Your task to perform on an android device: Show me productivity apps on the Play Store Image 0: 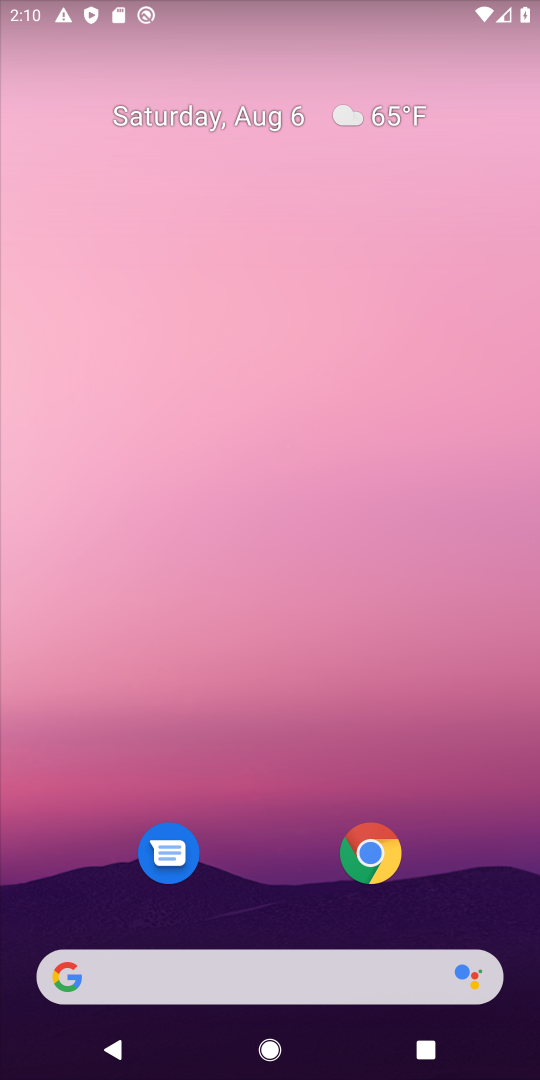
Step 0: press back button
Your task to perform on an android device: Show me productivity apps on the Play Store Image 1: 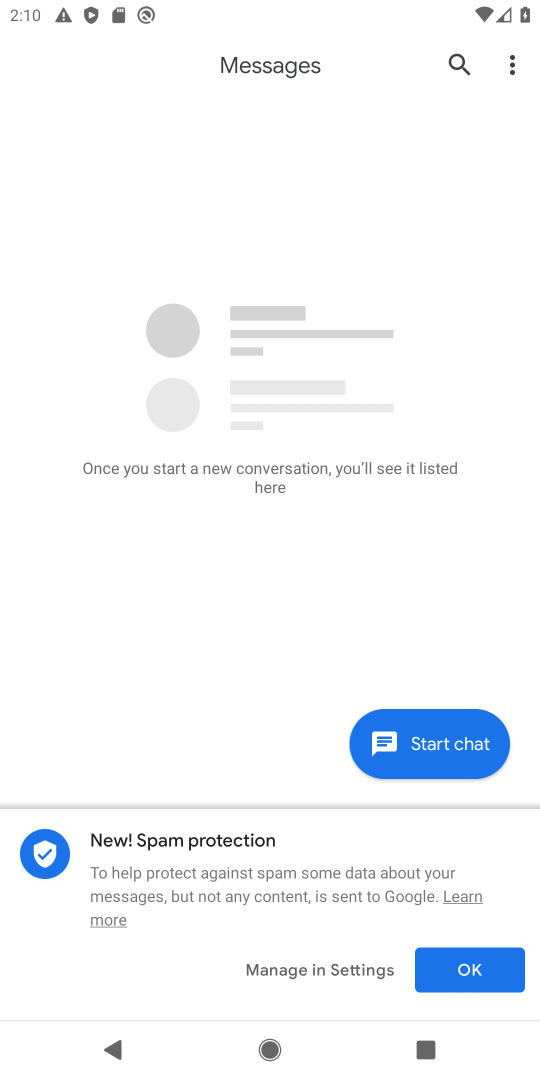
Step 1: click (323, 20)
Your task to perform on an android device: Show me productivity apps on the Play Store Image 2: 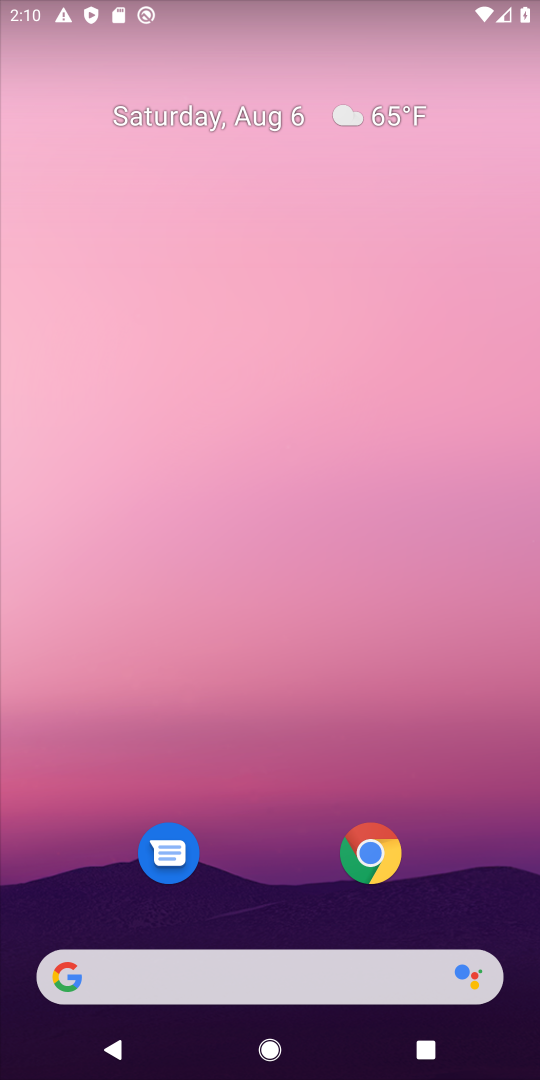
Step 2: drag from (266, 785) to (357, 80)
Your task to perform on an android device: Show me productivity apps on the Play Store Image 3: 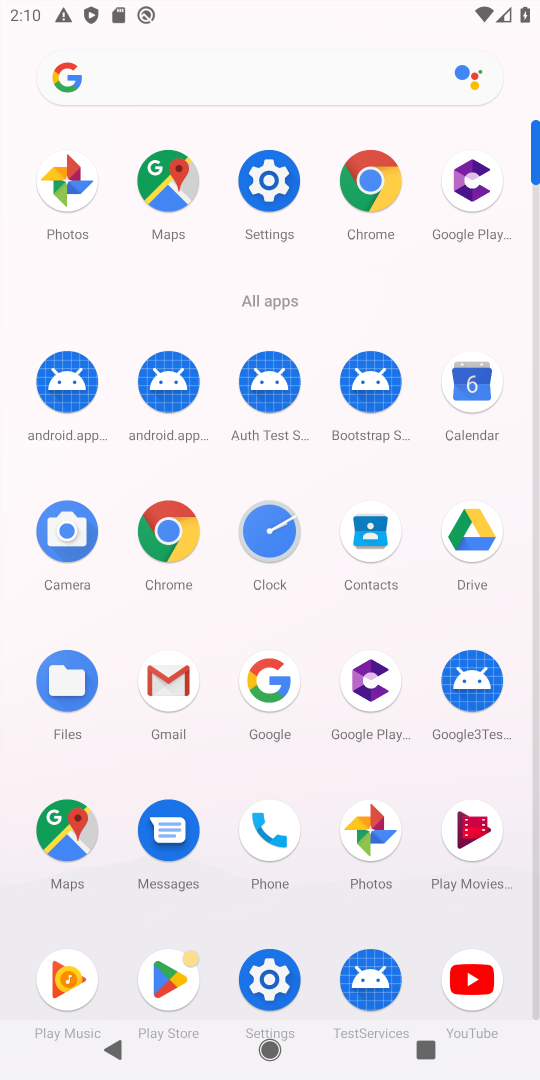
Step 3: drag from (257, 933) to (355, 228)
Your task to perform on an android device: Show me productivity apps on the Play Store Image 4: 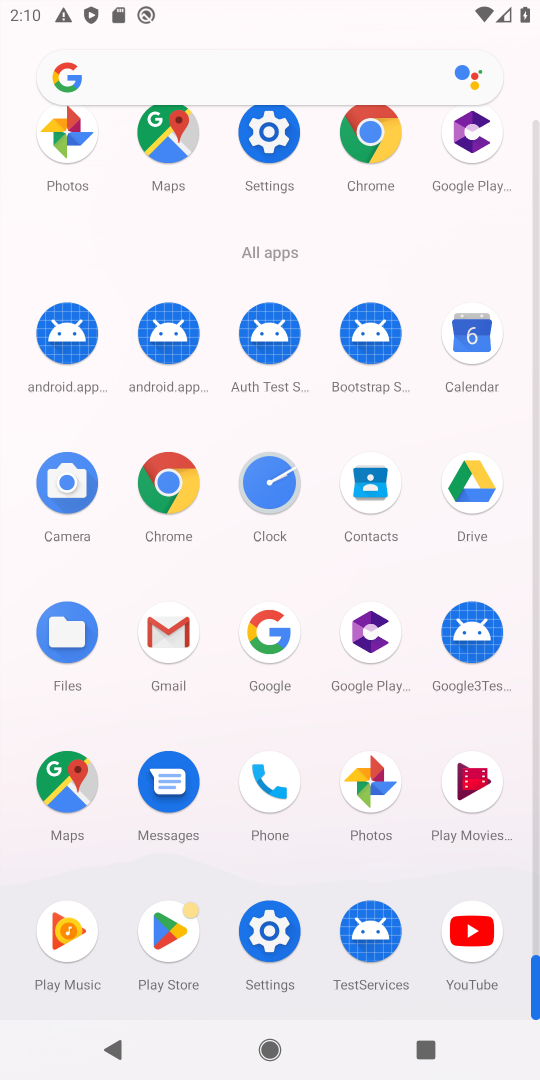
Step 4: click (176, 935)
Your task to perform on an android device: Show me productivity apps on the Play Store Image 5: 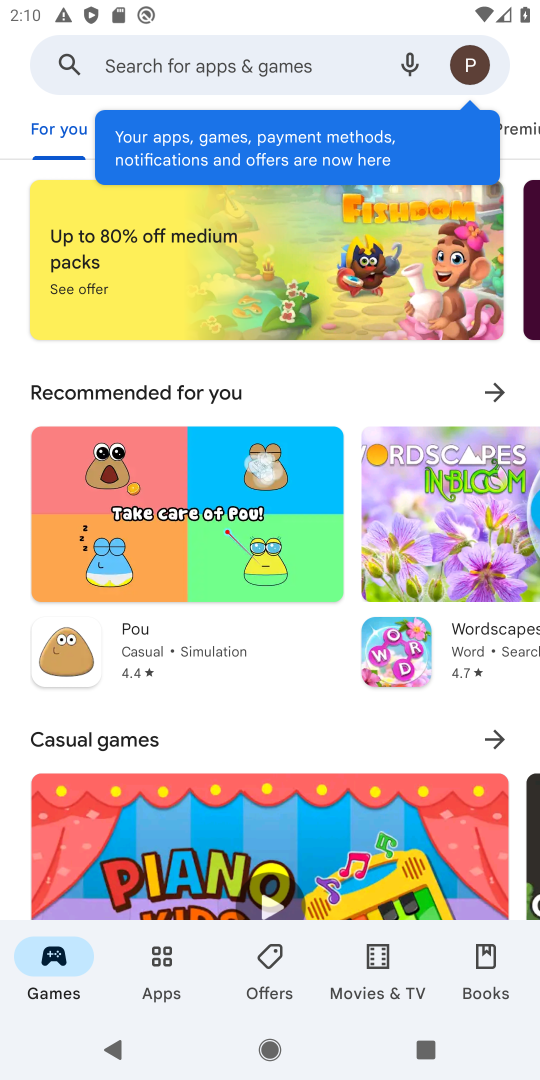
Step 5: click (165, 965)
Your task to perform on an android device: Show me productivity apps on the Play Store Image 6: 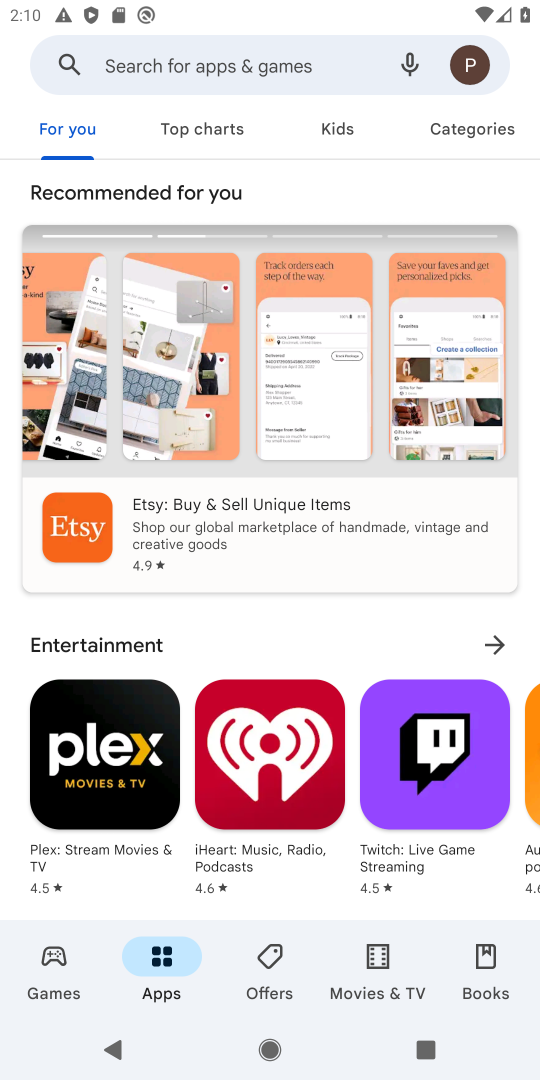
Step 6: drag from (202, 807) to (318, 57)
Your task to perform on an android device: Show me productivity apps on the Play Store Image 7: 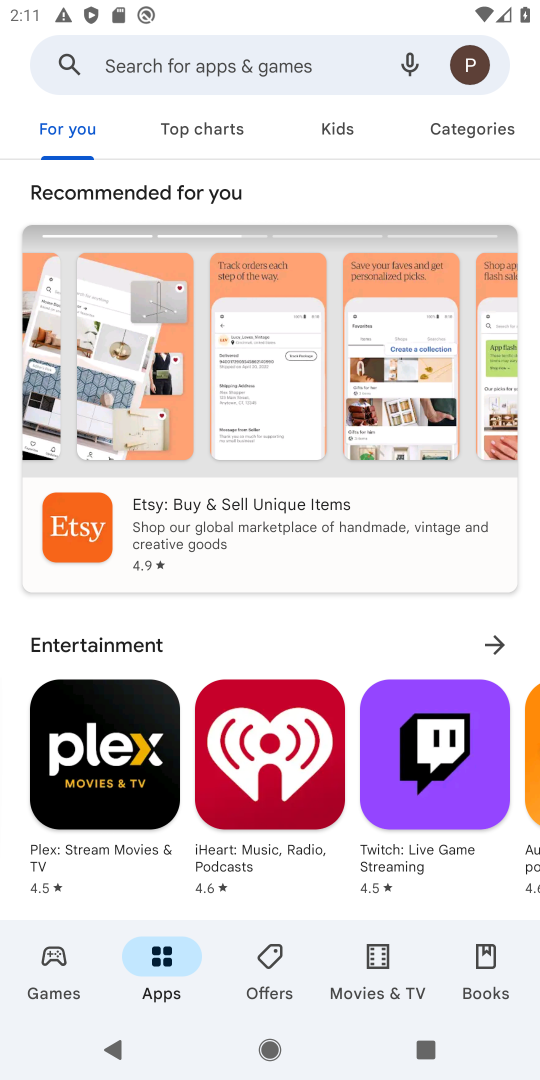
Step 7: drag from (240, 840) to (372, 160)
Your task to perform on an android device: Show me productivity apps on the Play Store Image 8: 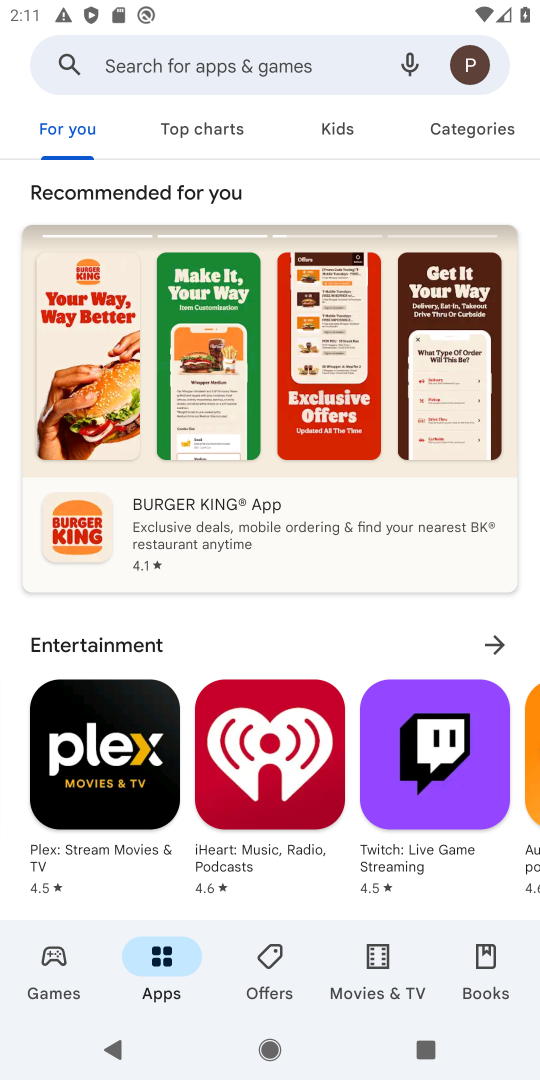
Step 8: drag from (302, 597) to (334, 105)
Your task to perform on an android device: Show me productivity apps on the Play Store Image 9: 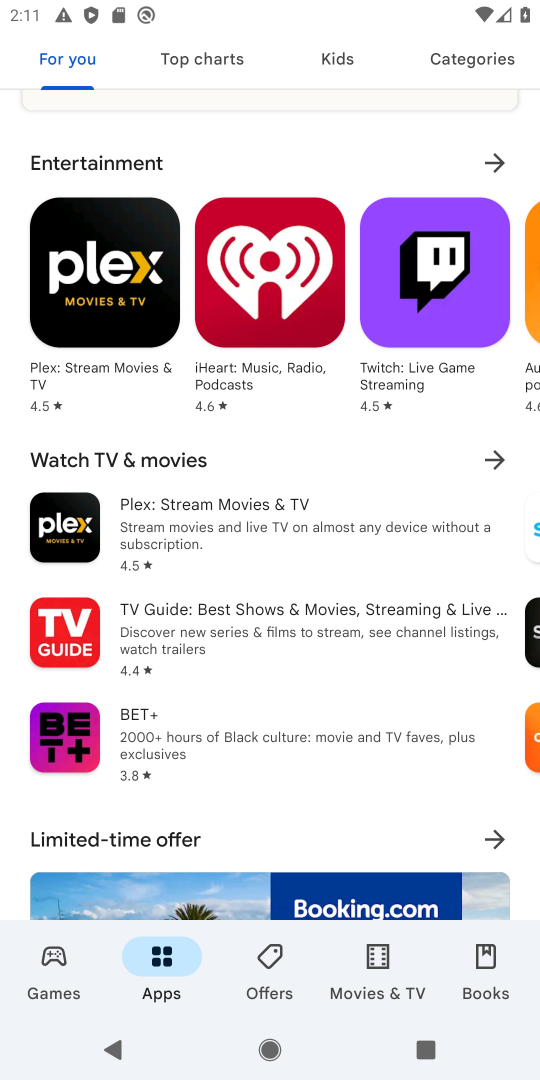
Step 9: drag from (242, 822) to (330, 212)
Your task to perform on an android device: Show me productivity apps on the Play Store Image 10: 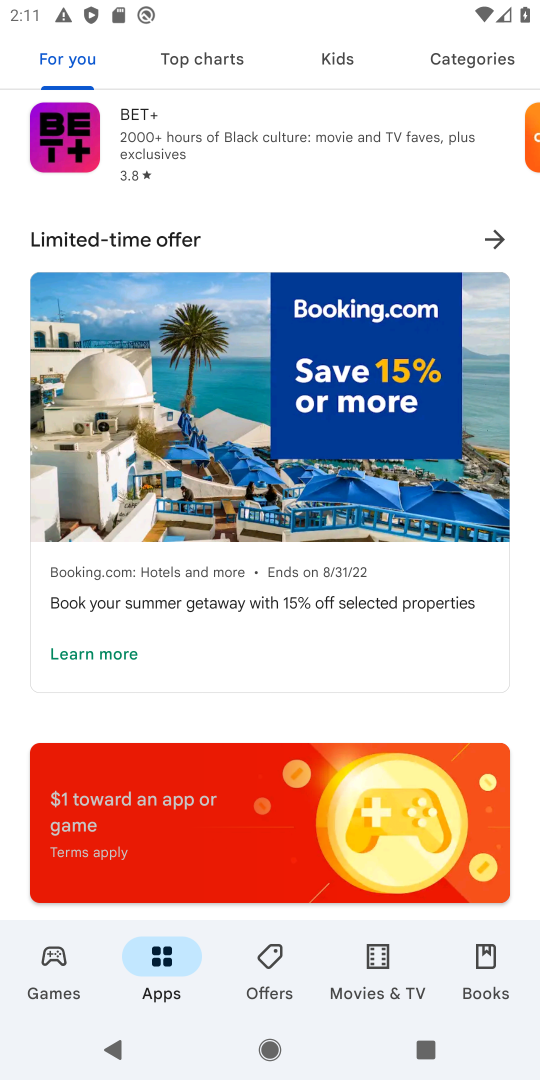
Step 10: drag from (282, 878) to (384, 29)
Your task to perform on an android device: Show me productivity apps on the Play Store Image 11: 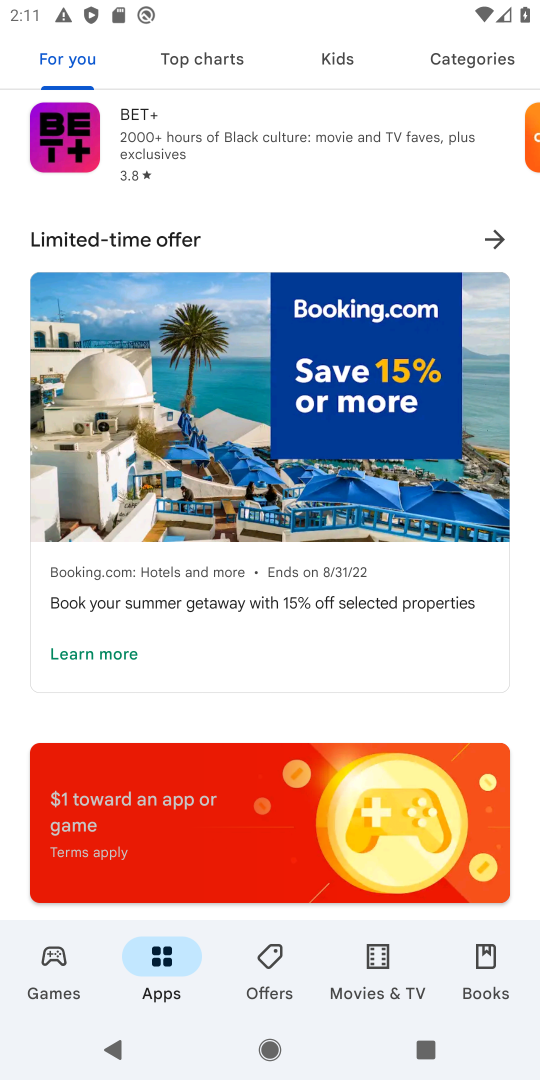
Step 11: drag from (253, 824) to (407, 87)
Your task to perform on an android device: Show me productivity apps on the Play Store Image 12: 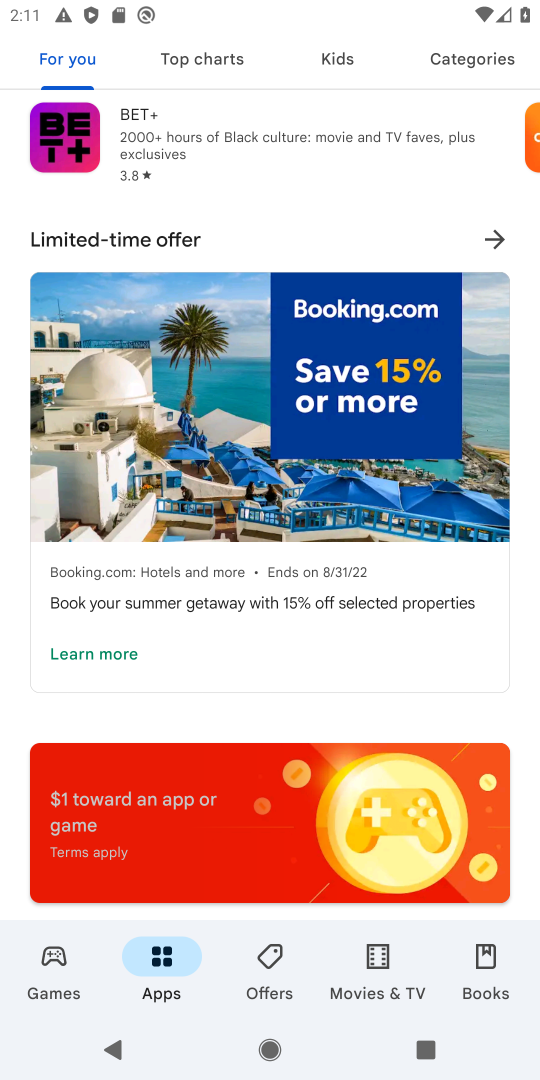
Step 12: drag from (284, 731) to (382, 116)
Your task to perform on an android device: Show me productivity apps on the Play Store Image 13: 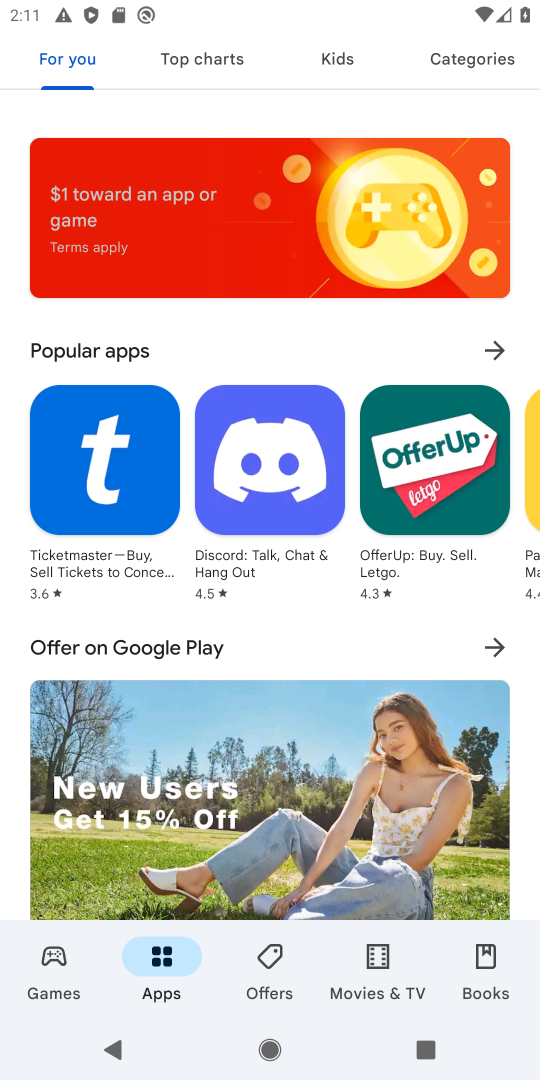
Step 13: drag from (313, 645) to (384, 213)
Your task to perform on an android device: Show me productivity apps on the Play Store Image 14: 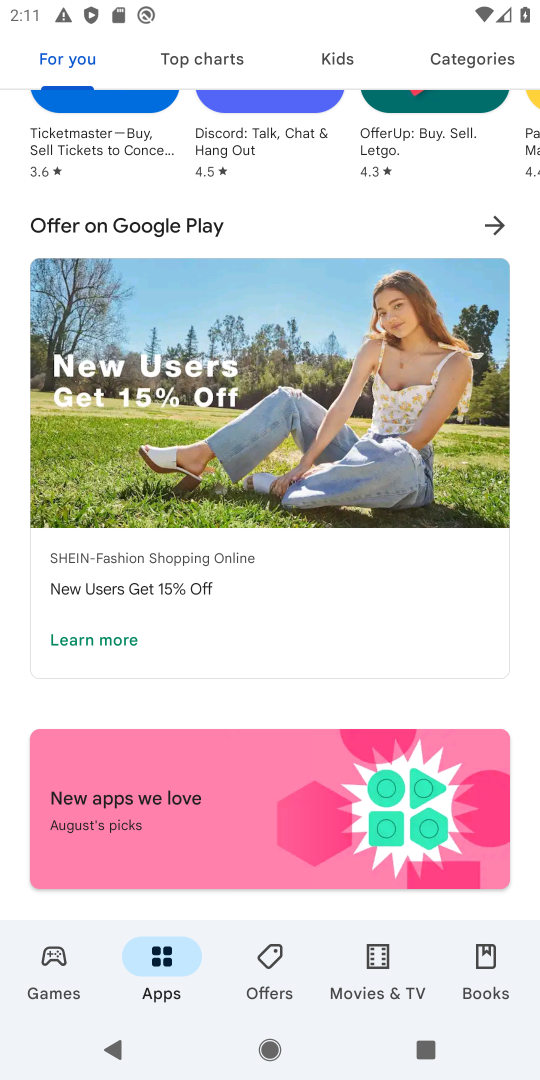
Step 14: drag from (224, 825) to (328, 152)
Your task to perform on an android device: Show me productivity apps on the Play Store Image 15: 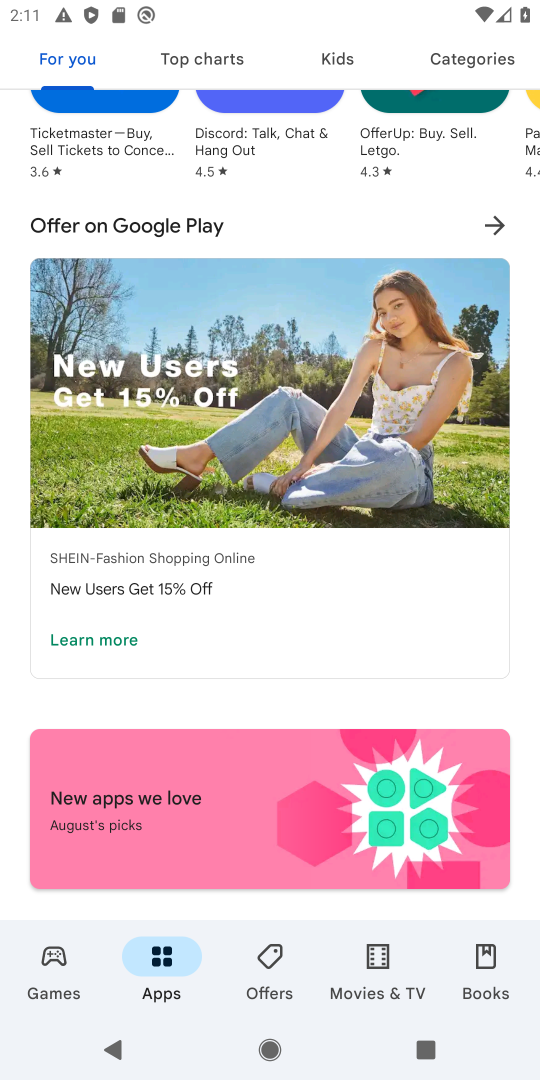
Step 15: drag from (6, 785) to (54, 232)
Your task to perform on an android device: Show me productivity apps on the Play Store Image 16: 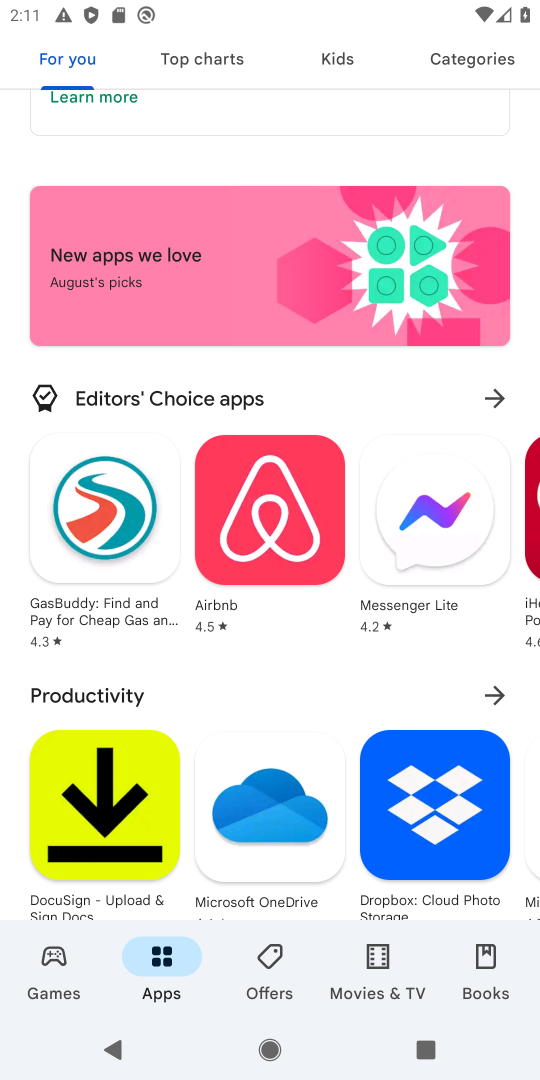
Step 16: click (501, 699)
Your task to perform on an android device: Show me productivity apps on the Play Store Image 17: 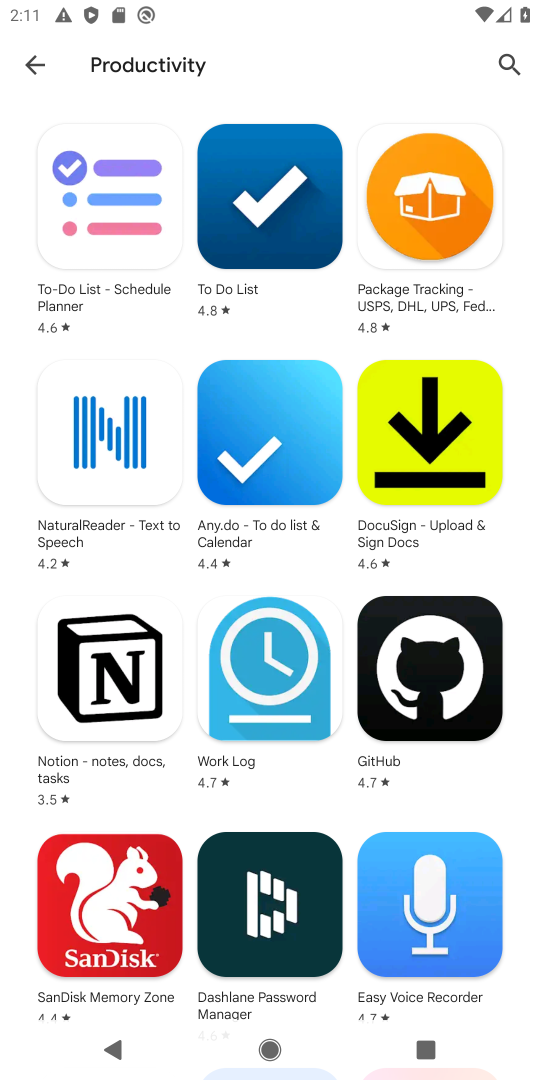
Step 17: task complete